Your task to perform on an android device: Open Google Chrome and open the bookmarks view Image 0: 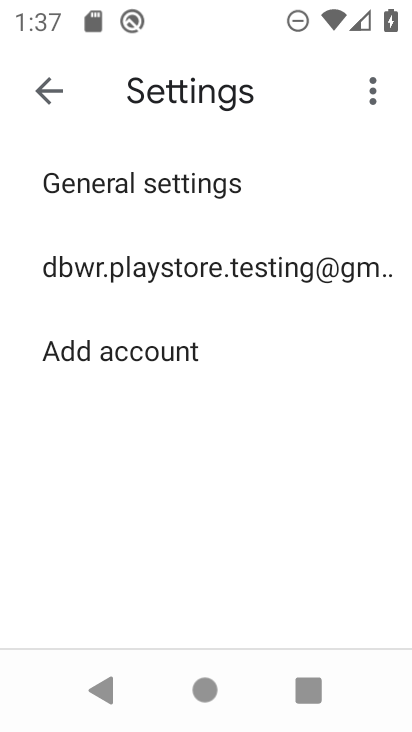
Step 0: press home button
Your task to perform on an android device: Open Google Chrome and open the bookmarks view Image 1: 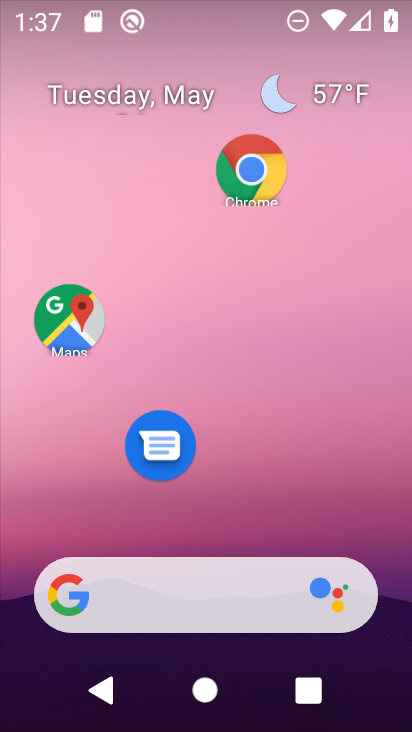
Step 1: drag from (233, 711) to (233, 63)
Your task to perform on an android device: Open Google Chrome and open the bookmarks view Image 2: 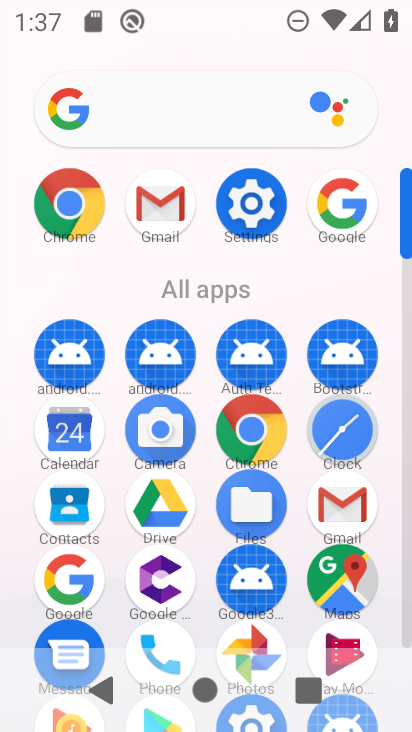
Step 2: click (258, 429)
Your task to perform on an android device: Open Google Chrome and open the bookmarks view Image 3: 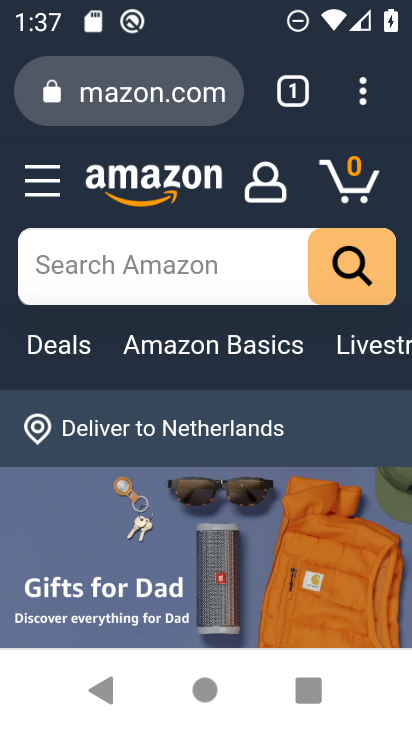
Step 3: click (362, 104)
Your task to perform on an android device: Open Google Chrome and open the bookmarks view Image 4: 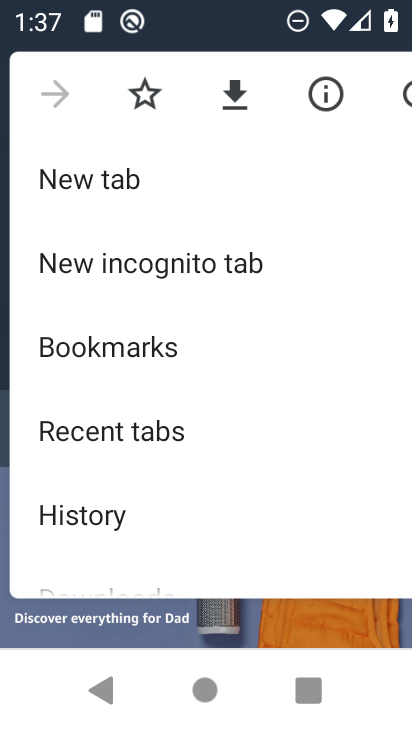
Step 4: click (146, 350)
Your task to perform on an android device: Open Google Chrome and open the bookmarks view Image 5: 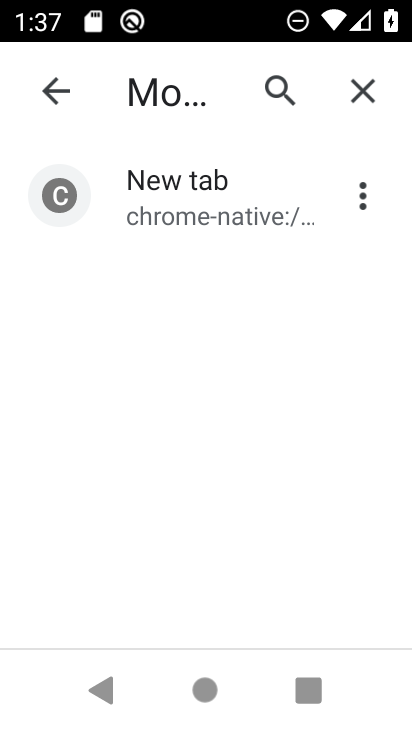
Step 5: task complete